Your task to perform on an android device: What's the weather going to be this weekend? Image 0: 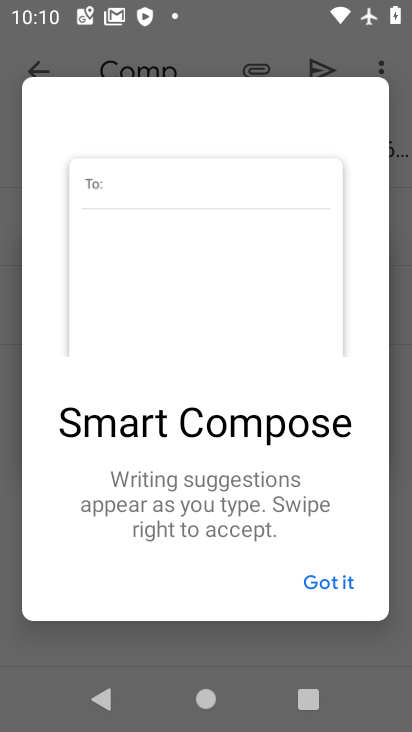
Step 0: click (361, 580)
Your task to perform on an android device: What's the weather going to be this weekend? Image 1: 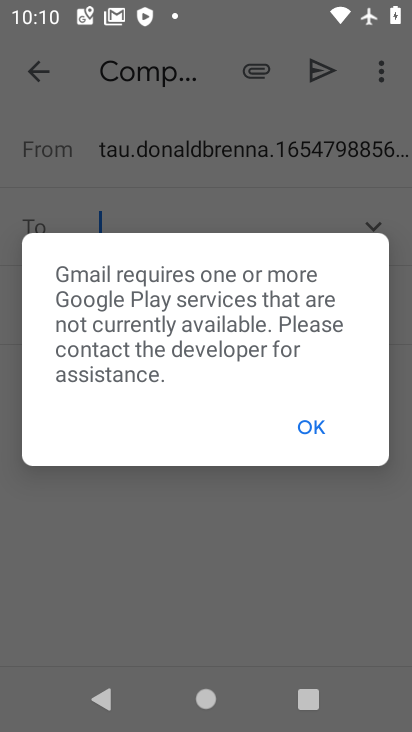
Step 1: click (315, 413)
Your task to perform on an android device: What's the weather going to be this weekend? Image 2: 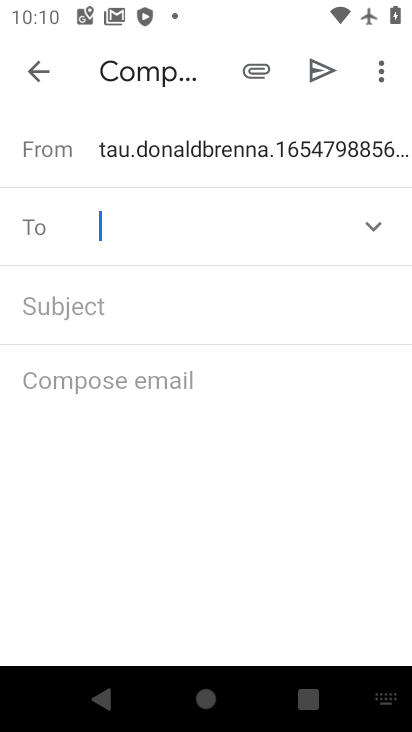
Step 2: press home button
Your task to perform on an android device: What's the weather going to be this weekend? Image 3: 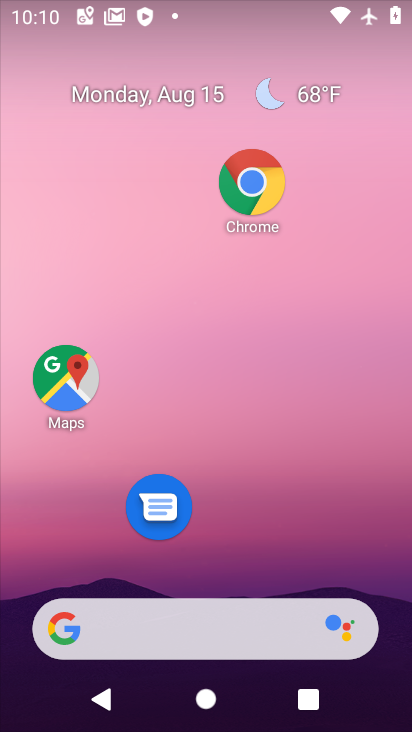
Step 3: click (228, 626)
Your task to perform on an android device: What's the weather going to be this weekend? Image 4: 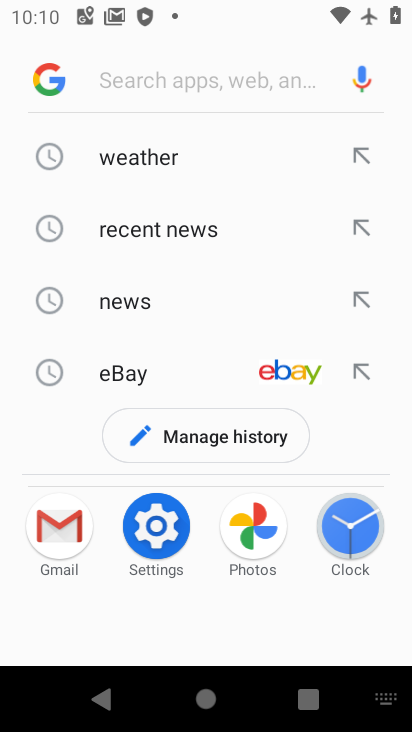
Step 4: click (118, 156)
Your task to perform on an android device: What's the weather going to be this weekend? Image 5: 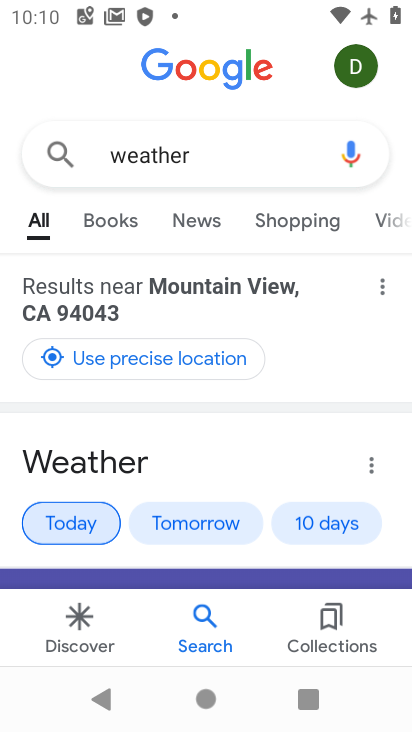
Step 5: task complete